Your task to perform on an android device: turn on data saver in the chrome app Image 0: 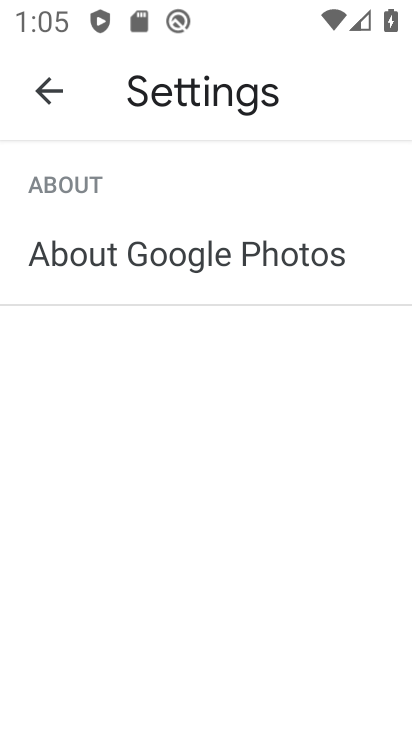
Step 0: press home button
Your task to perform on an android device: turn on data saver in the chrome app Image 1: 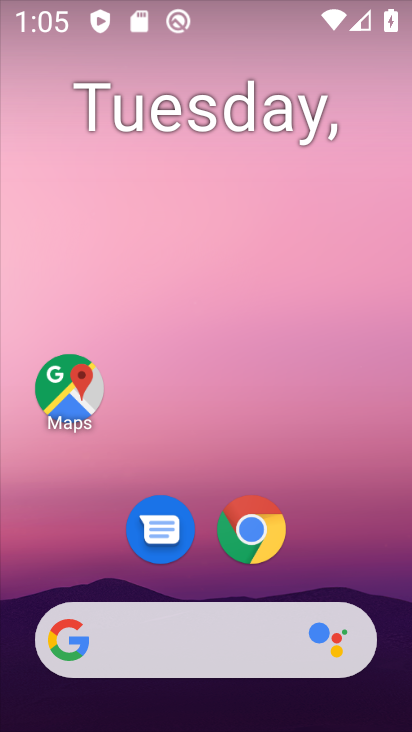
Step 1: drag from (308, 558) to (282, 0)
Your task to perform on an android device: turn on data saver in the chrome app Image 2: 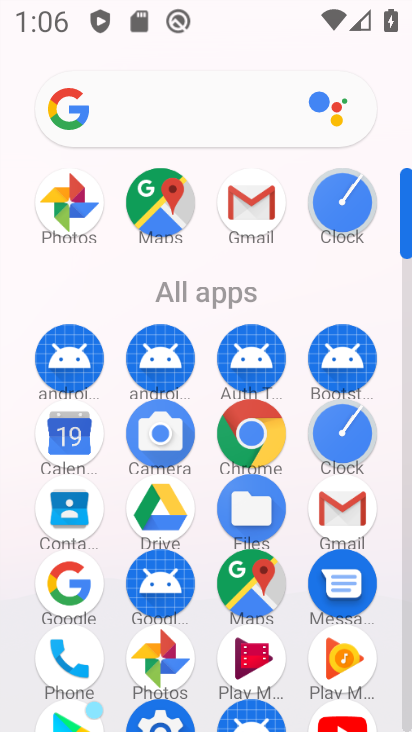
Step 2: drag from (291, 551) to (305, 273)
Your task to perform on an android device: turn on data saver in the chrome app Image 3: 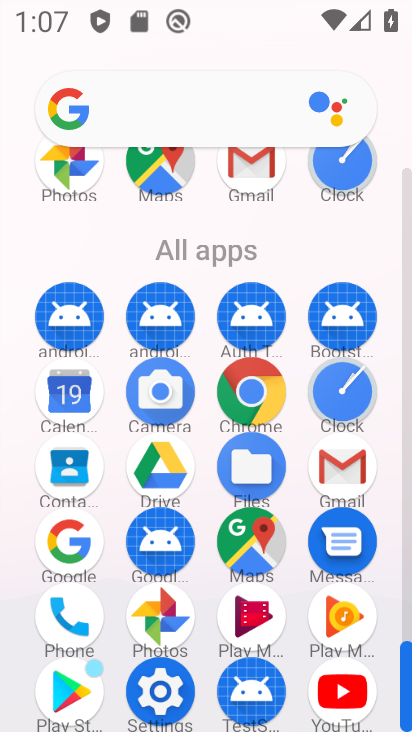
Step 3: click (260, 390)
Your task to perform on an android device: turn on data saver in the chrome app Image 4: 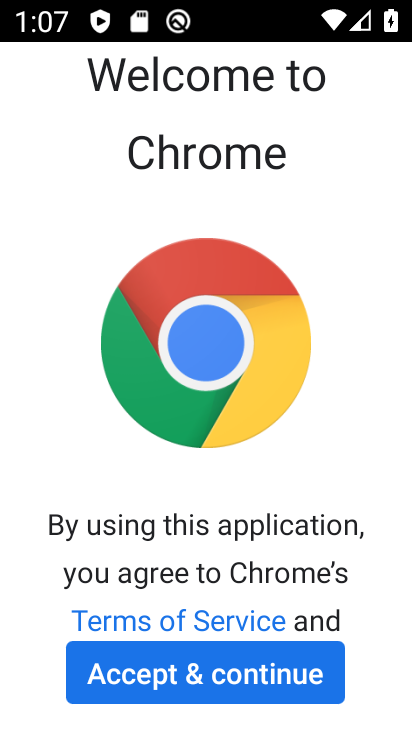
Step 4: click (249, 683)
Your task to perform on an android device: turn on data saver in the chrome app Image 5: 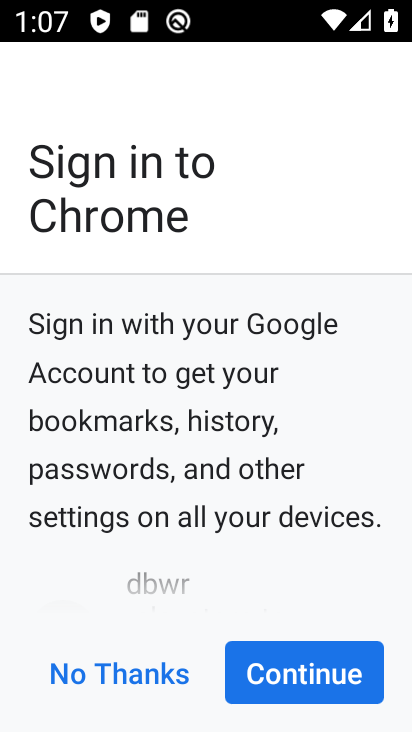
Step 5: click (303, 671)
Your task to perform on an android device: turn on data saver in the chrome app Image 6: 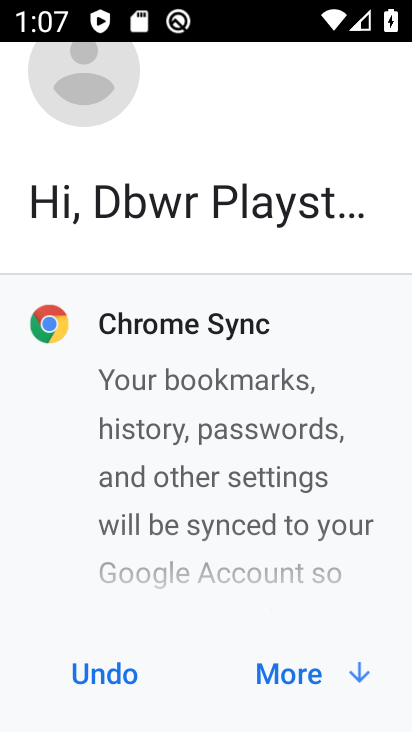
Step 6: click (303, 671)
Your task to perform on an android device: turn on data saver in the chrome app Image 7: 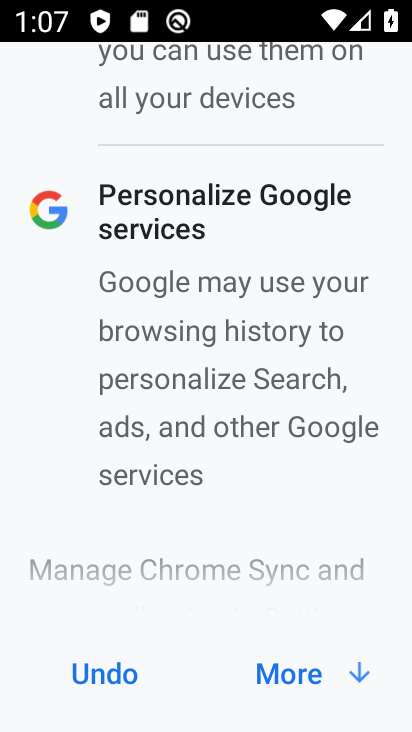
Step 7: click (303, 671)
Your task to perform on an android device: turn on data saver in the chrome app Image 8: 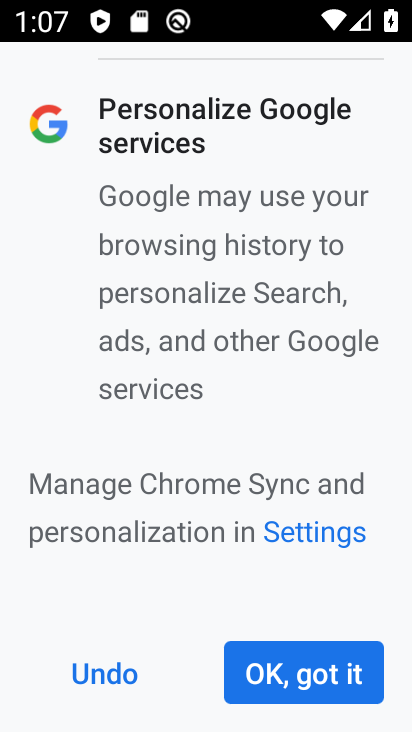
Step 8: click (303, 671)
Your task to perform on an android device: turn on data saver in the chrome app Image 9: 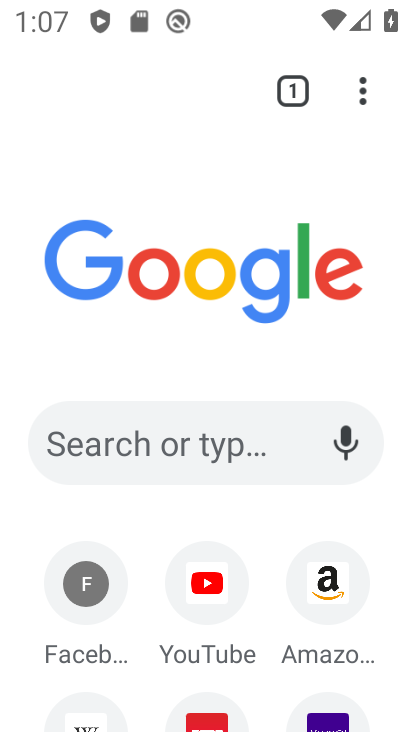
Step 9: click (367, 85)
Your task to perform on an android device: turn on data saver in the chrome app Image 10: 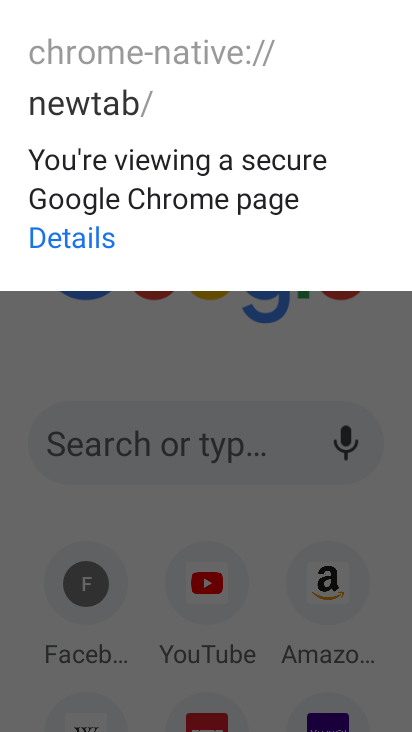
Step 10: click (322, 320)
Your task to perform on an android device: turn on data saver in the chrome app Image 11: 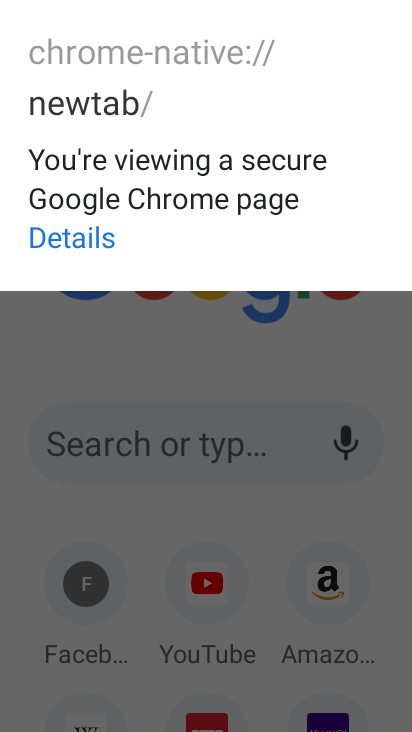
Step 11: click (326, 314)
Your task to perform on an android device: turn on data saver in the chrome app Image 12: 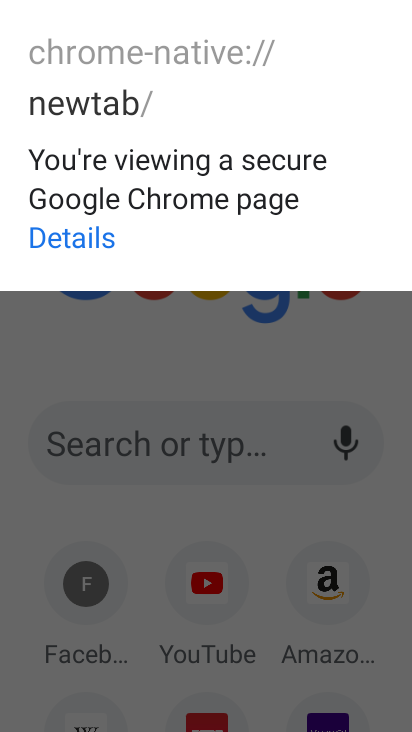
Step 12: click (101, 101)
Your task to perform on an android device: turn on data saver in the chrome app Image 13: 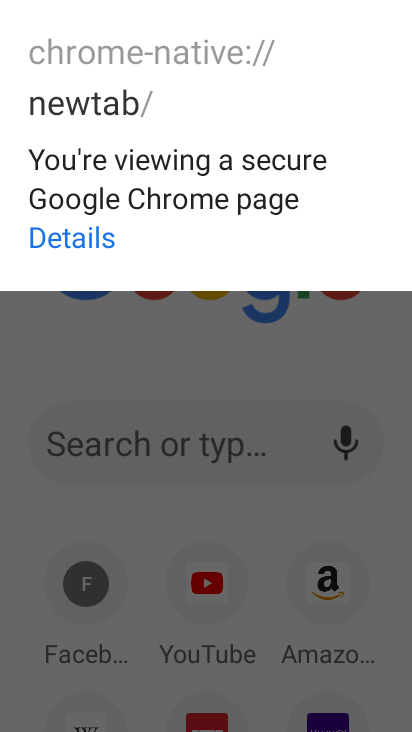
Step 13: click (332, 351)
Your task to perform on an android device: turn on data saver in the chrome app Image 14: 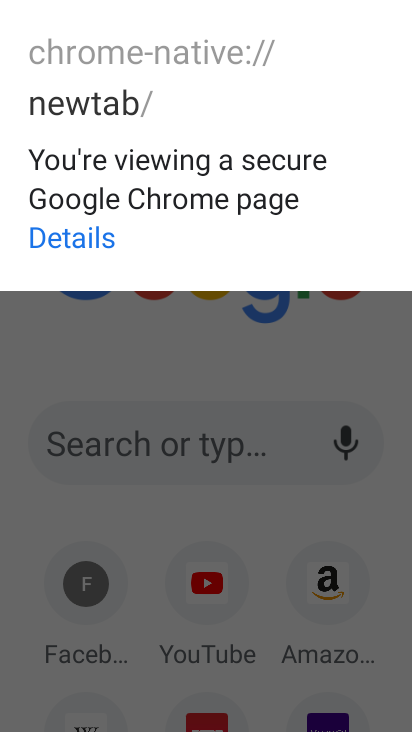
Step 14: click (332, 351)
Your task to perform on an android device: turn on data saver in the chrome app Image 15: 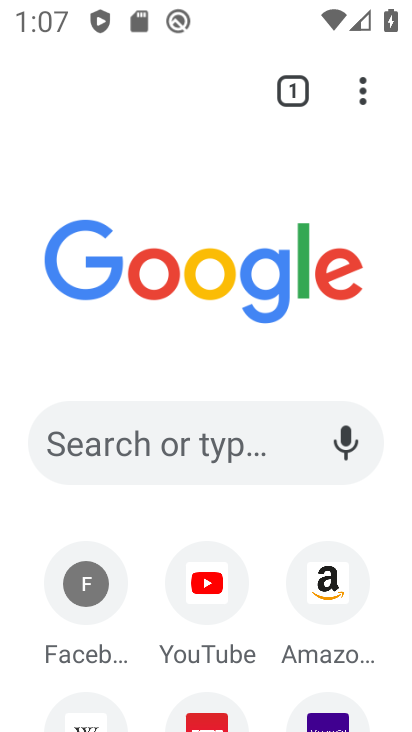
Step 15: click (332, 351)
Your task to perform on an android device: turn on data saver in the chrome app Image 16: 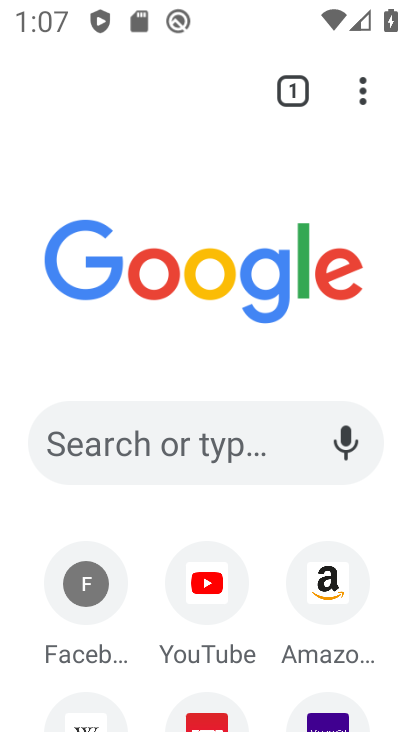
Step 16: click (362, 90)
Your task to perform on an android device: turn on data saver in the chrome app Image 17: 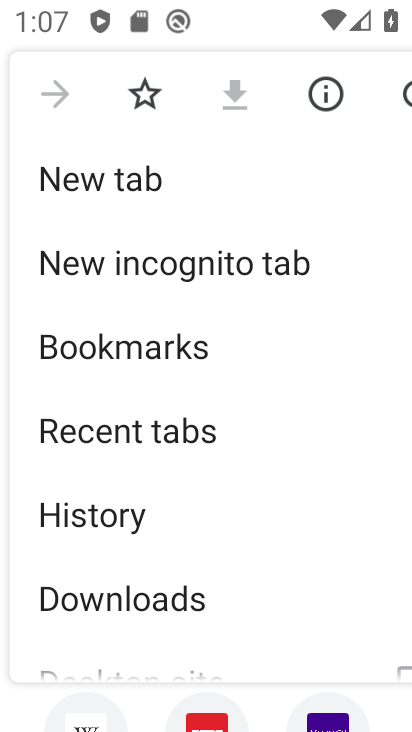
Step 17: drag from (261, 554) to (267, 192)
Your task to perform on an android device: turn on data saver in the chrome app Image 18: 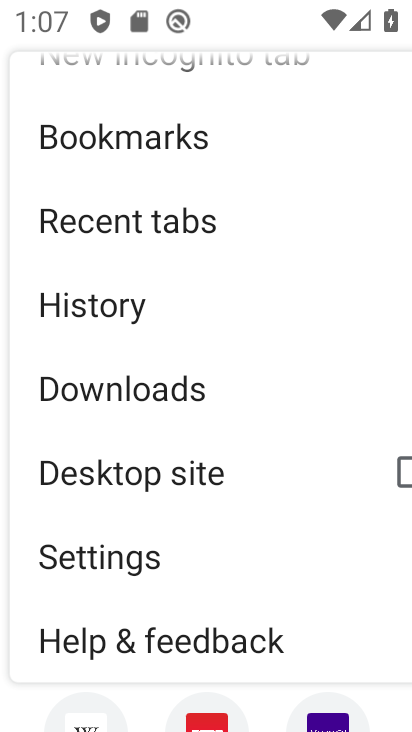
Step 18: click (164, 566)
Your task to perform on an android device: turn on data saver in the chrome app Image 19: 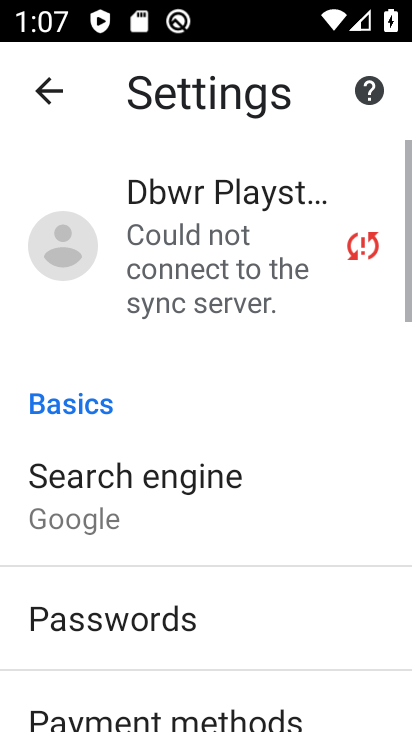
Step 19: drag from (263, 545) to (310, 137)
Your task to perform on an android device: turn on data saver in the chrome app Image 20: 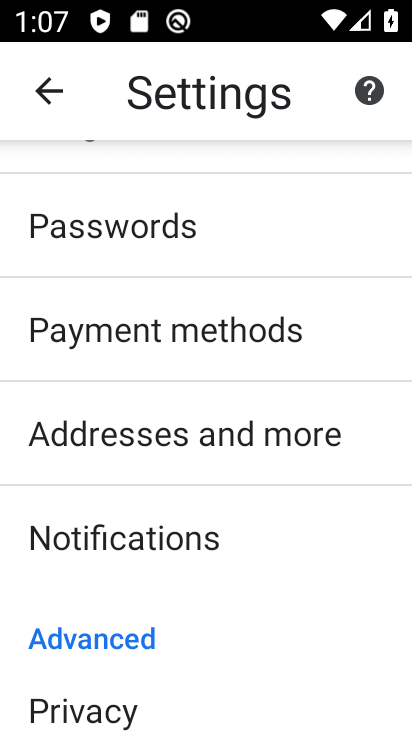
Step 20: drag from (270, 669) to (327, 184)
Your task to perform on an android device: turn on data saver in the chrome app Image 21: 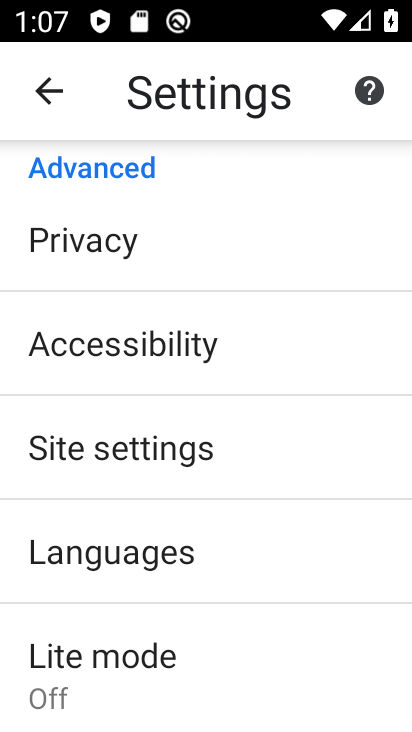
Step 21: click (158, 653)
Your task to perform on an android device: turn on data saver in the chrome app Image 22: 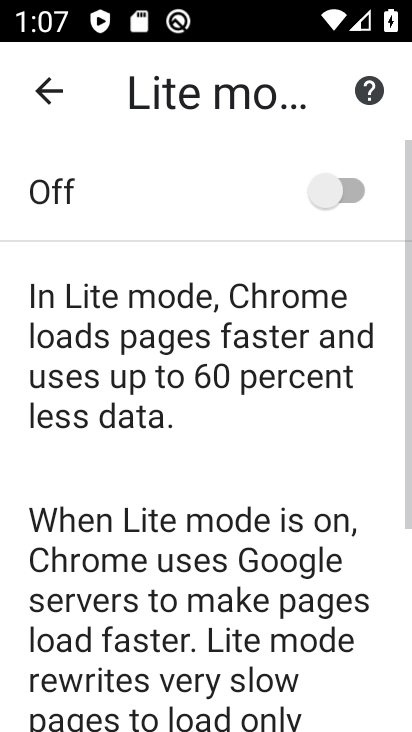
Step 22: click (350, 191)
Your task to perform on an android device: turn on data saver in the chrome app Image 23: 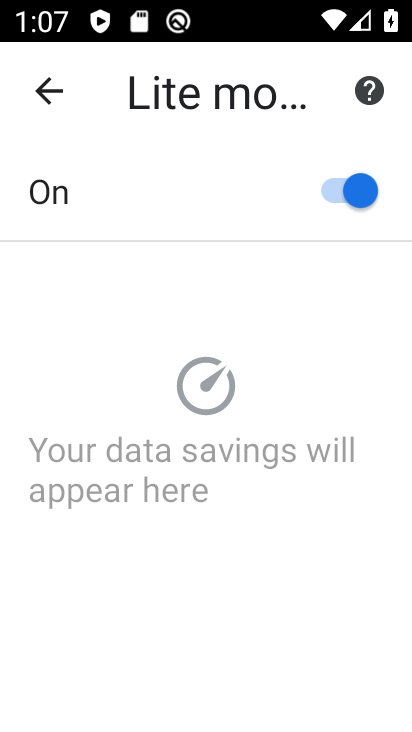
Step 23: task complete